Your task to perform on an android device: uninstall "Pandora - Music & Podcasts" Image 0: 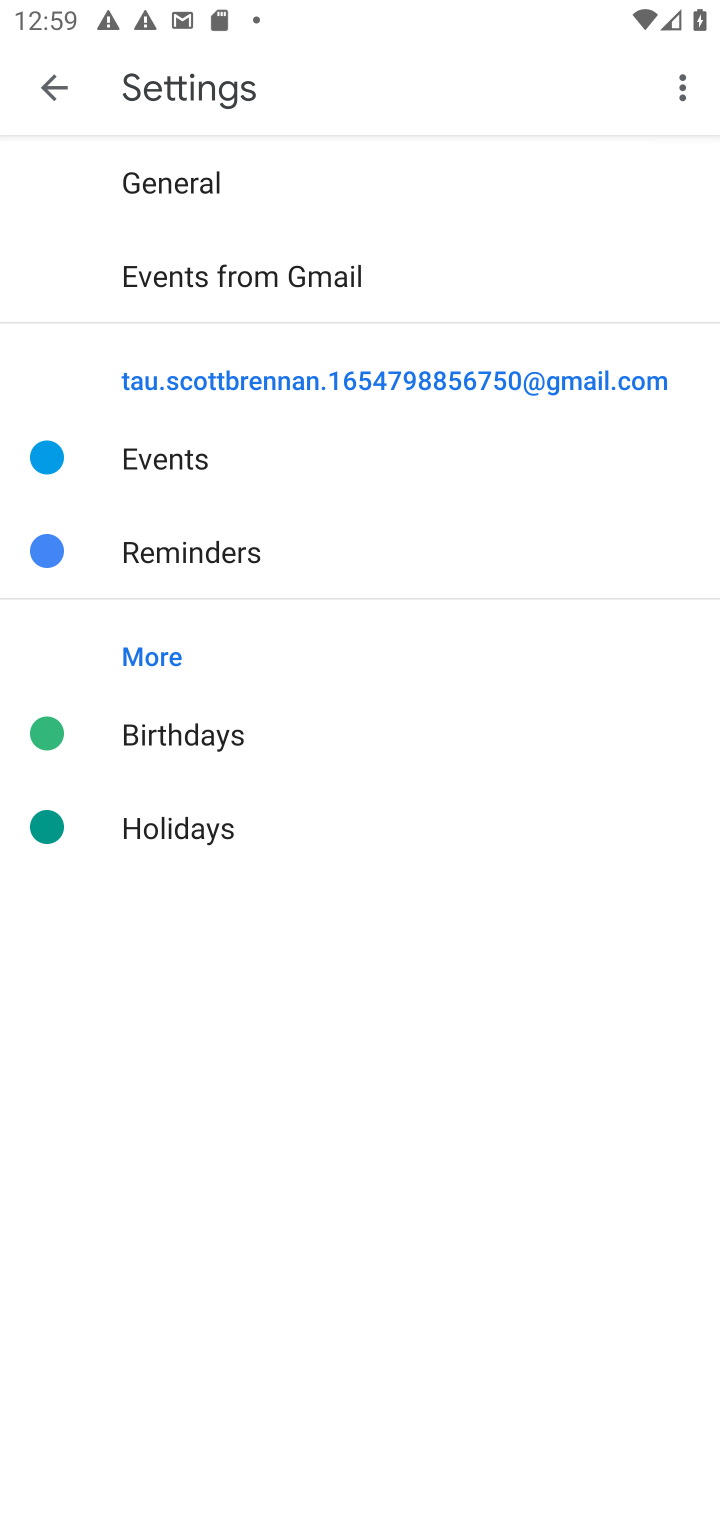
Step 0: press home button
Your task to perform on an android device: uninstall "Pandora - Music & Podcasts" Image 1: 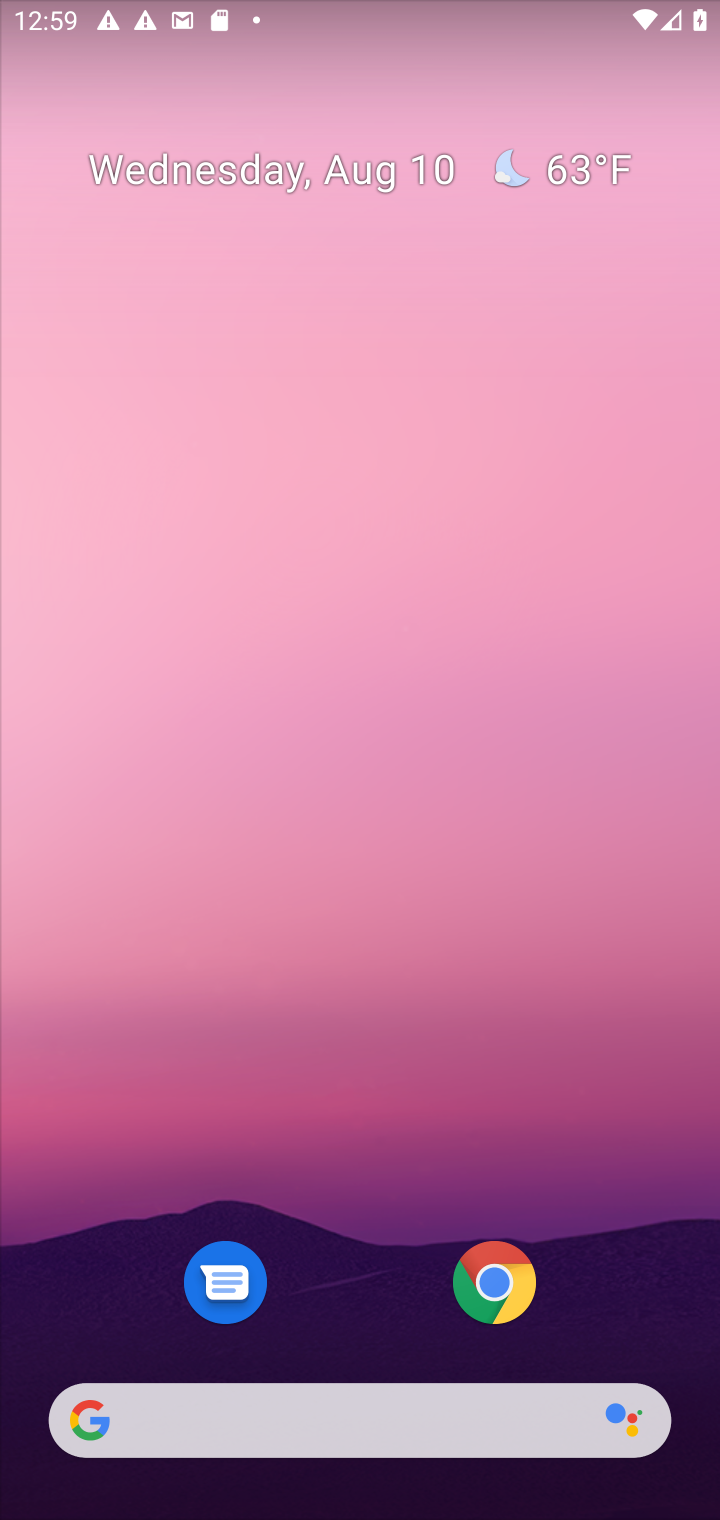
Step 1: drag from (346, 1313) to (389, 439)
Your task to perform on an android device: uninstall "Pandora - Music & Podcasts" Image 2: 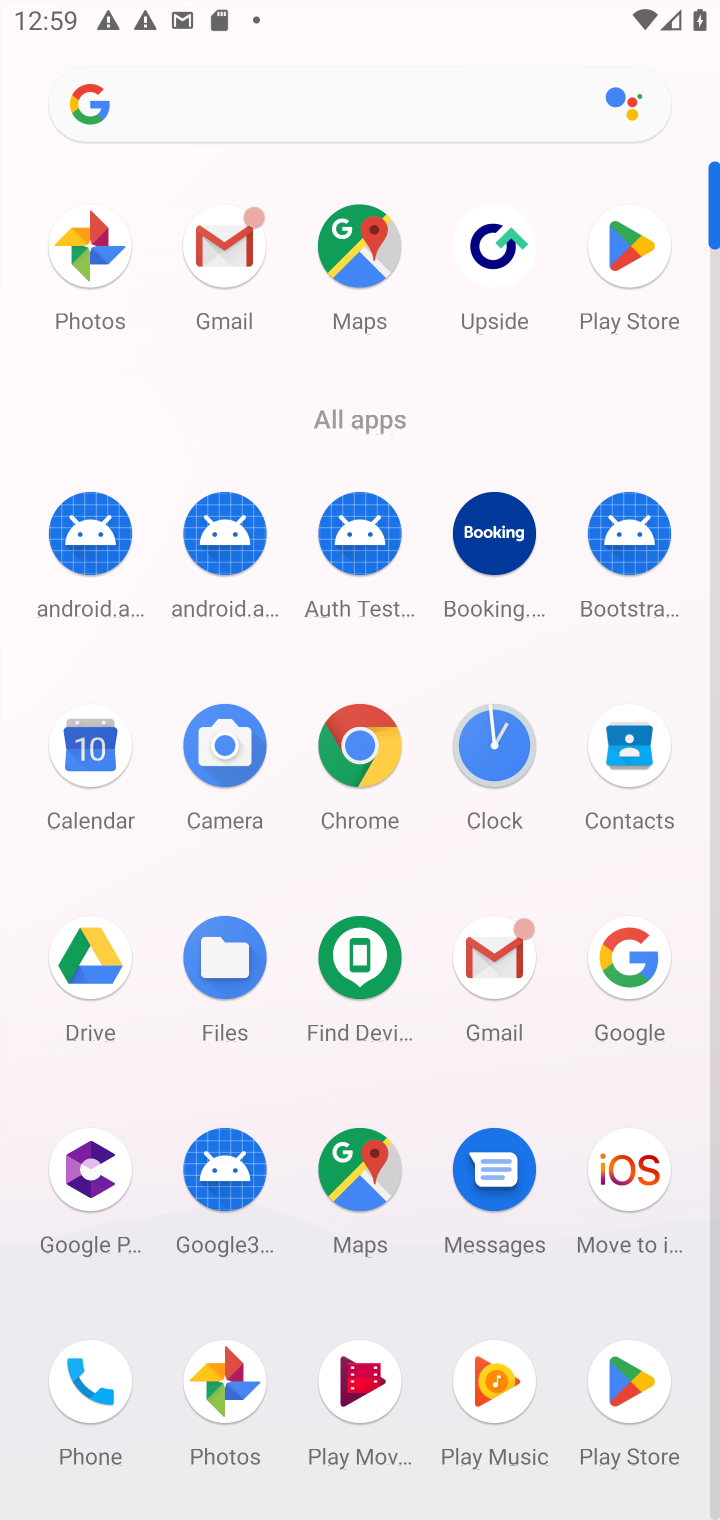
Step 2: click (645, 254)
Your task to perform on an android device: uninstall "Pandora - Music & Podcasts" Image 3: 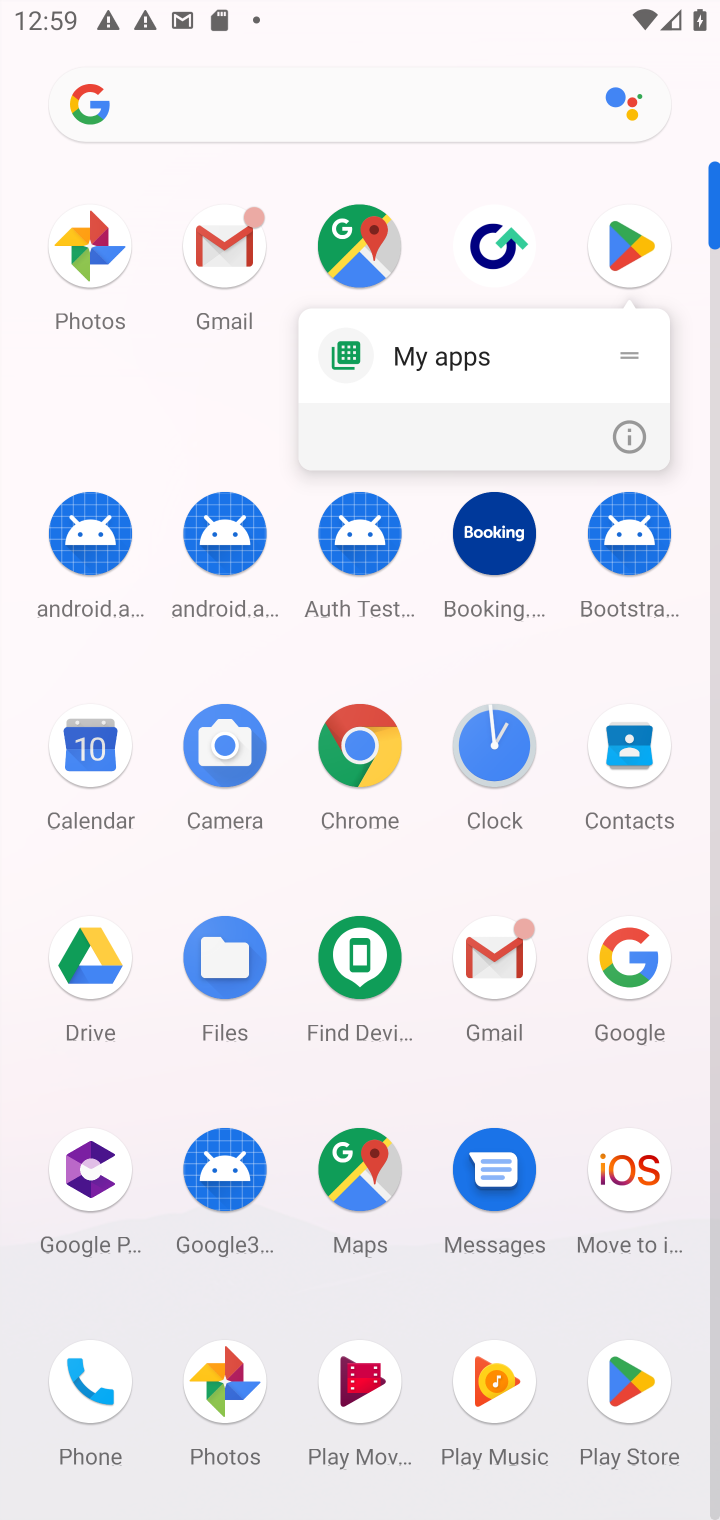
Step 3: click (626, 270)
Your task to perform on an android device: uninstall "Pandora - Music & Podcasts" Image 4: 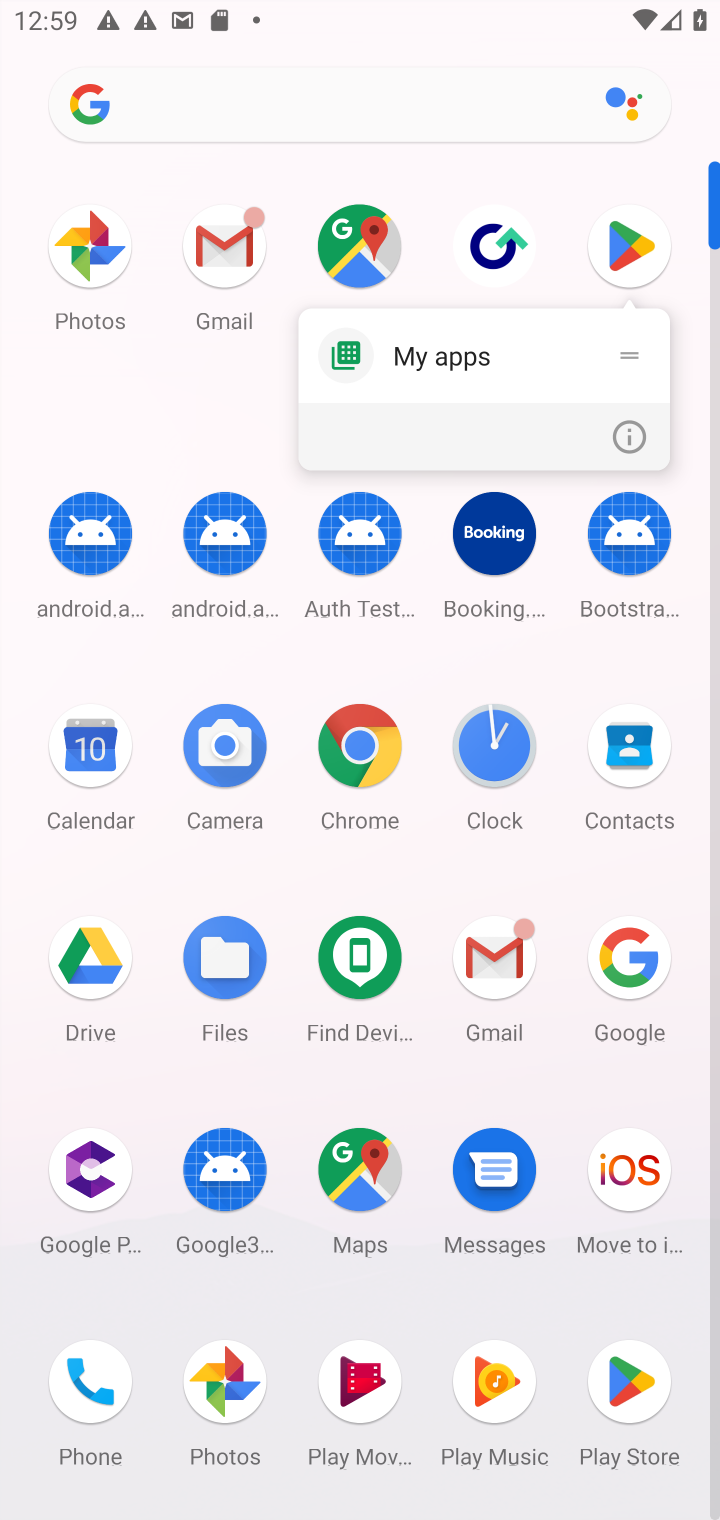
Step 4: click (626, 254)
Your task to perform on an android device: uninstall "Pandora - Music & Podcasts" Image 5: 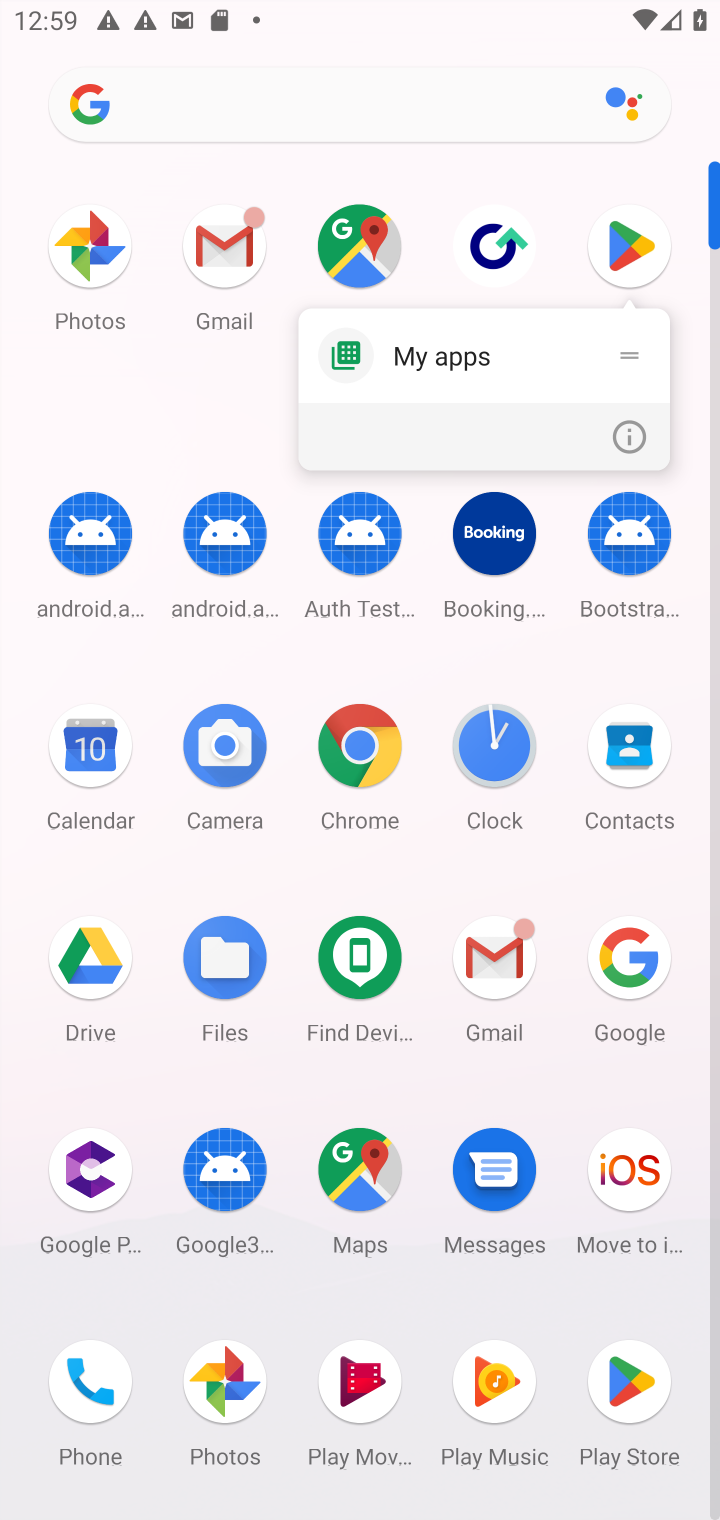
Step 5: click (626, 254)
Your task to perform on an android device: uninstall "Pandora - Music & Podcasts" Image 6: 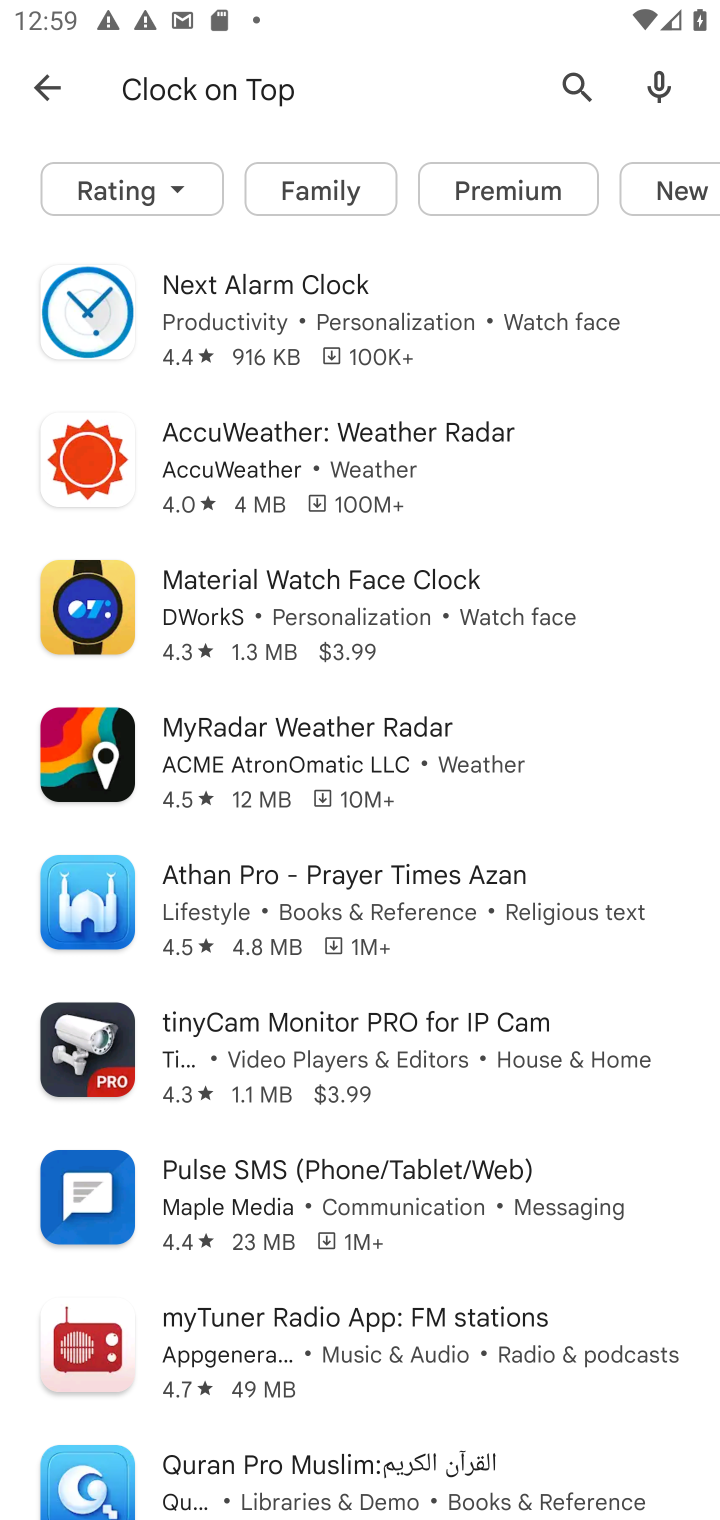
Step 6: click (76, 76)
Your task to perform on an android device: uninstall "Pandora - Music & Podcasts" Image 7: 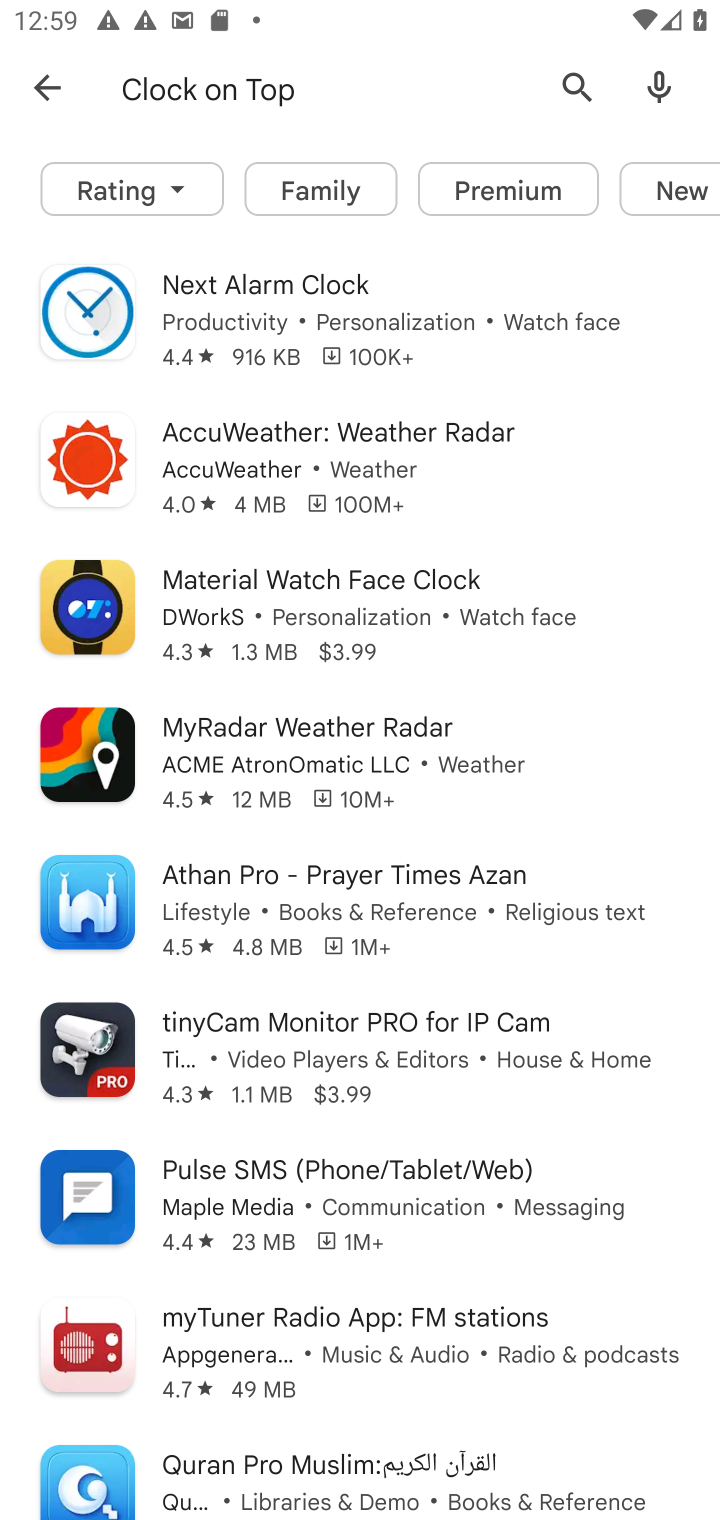
Step 7: click (28, 96)
Your task to perform on an android device: uninstall "Pandora - Music & Podcasts" Image 8: 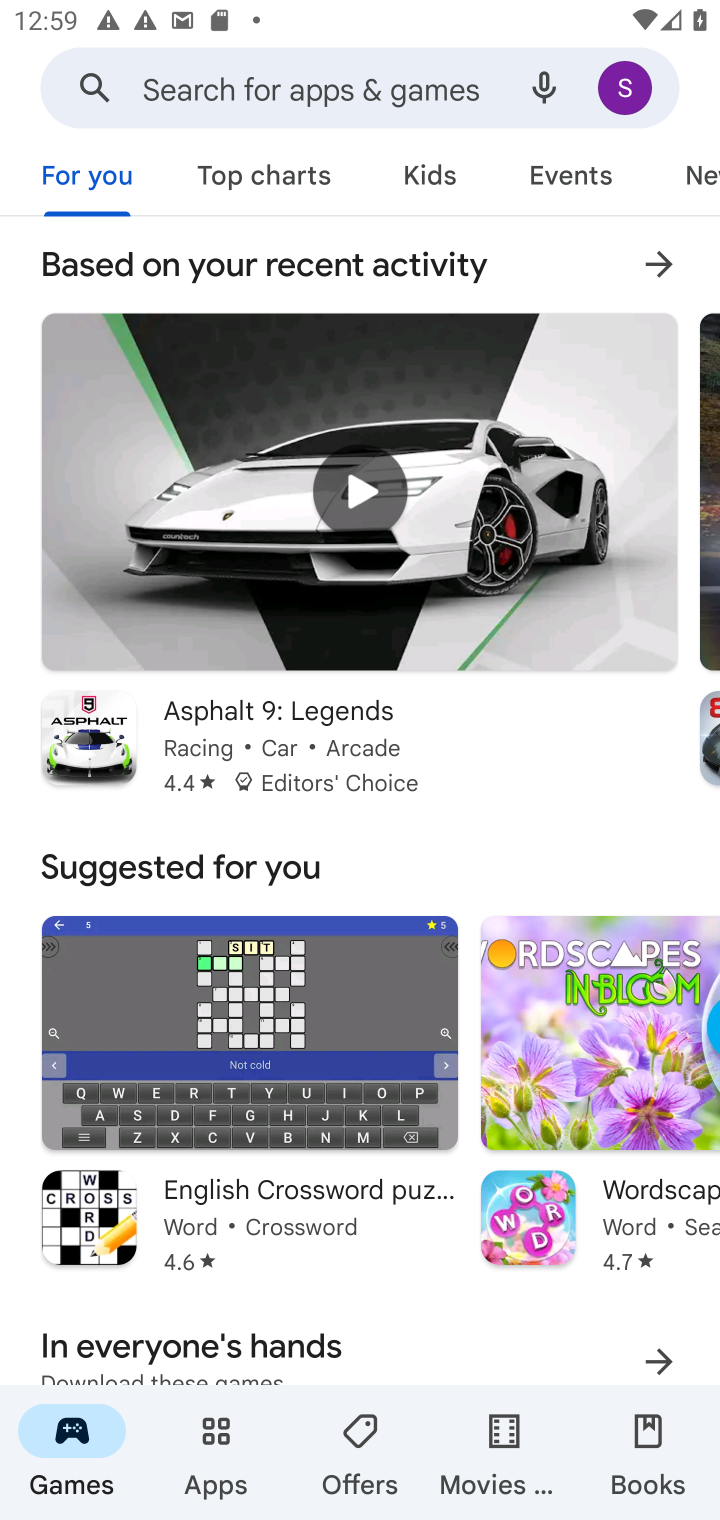
Step 8: click (363, 76)
Your task to perform on an android device: uninstall "Pandora - Music & Podcasts" Image 9: 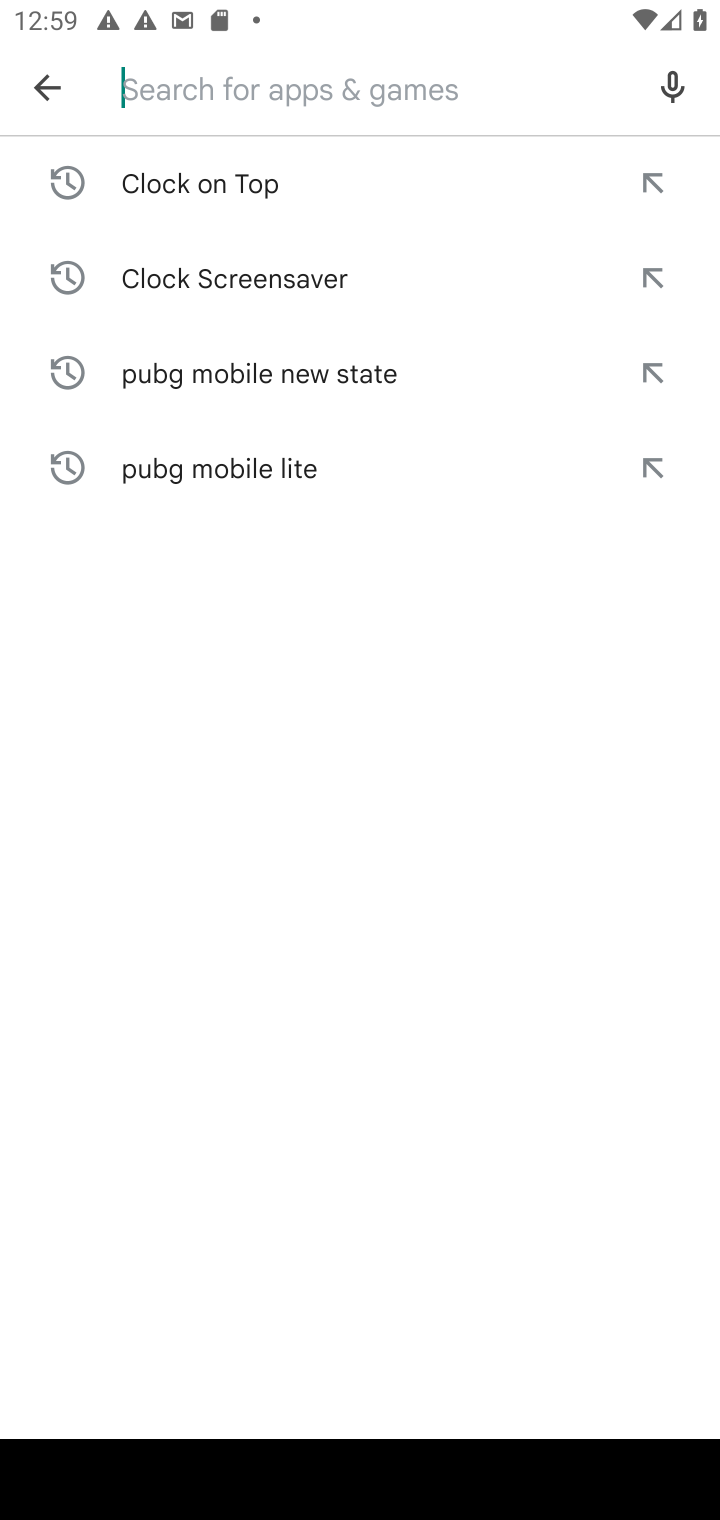
Step 9: type "Pandora  "
Your task to perform on an android device: uninstall "Pandora - Music & Podcasts" Image 10: 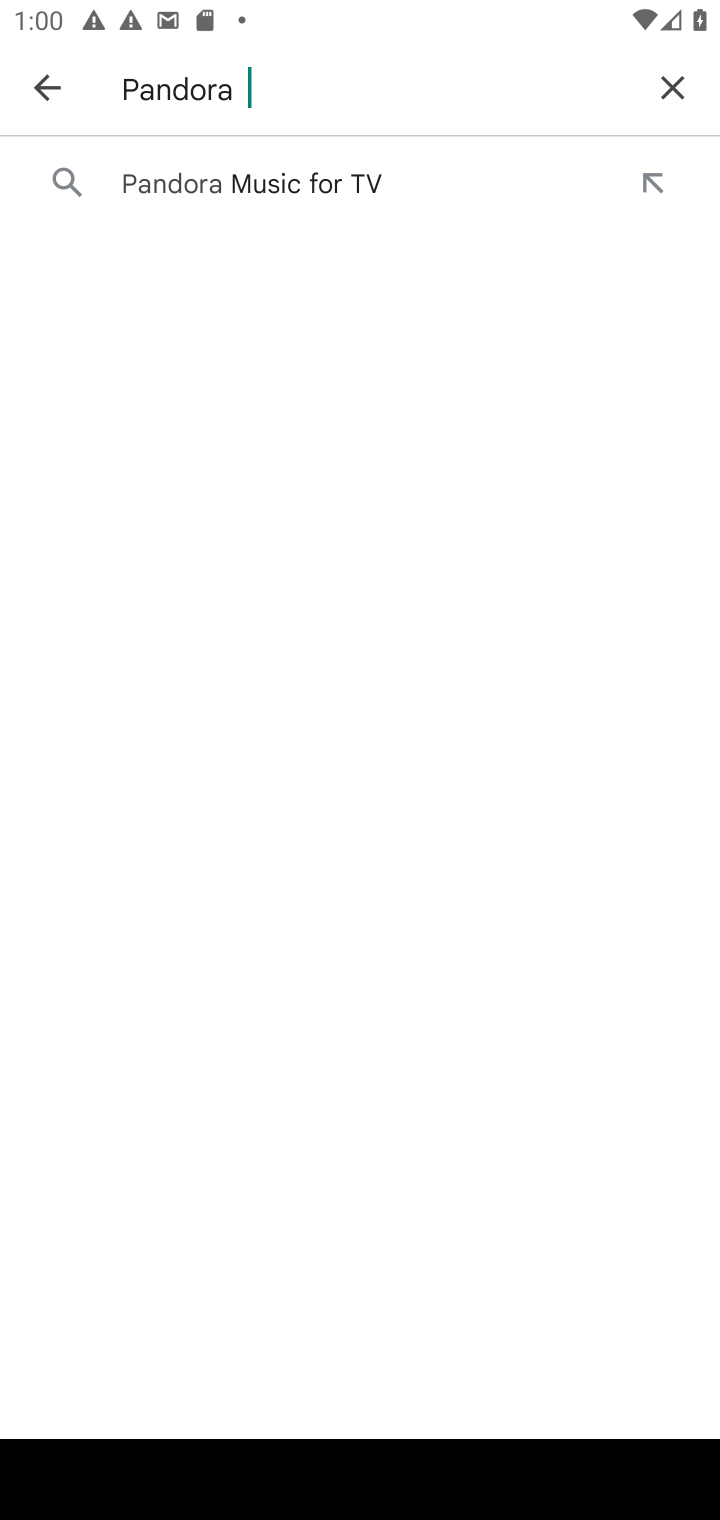
Step 10: click (273, 191)
Your task to perform on an android device: uninstall "Pandora - Music & Podcasts" Image 11: 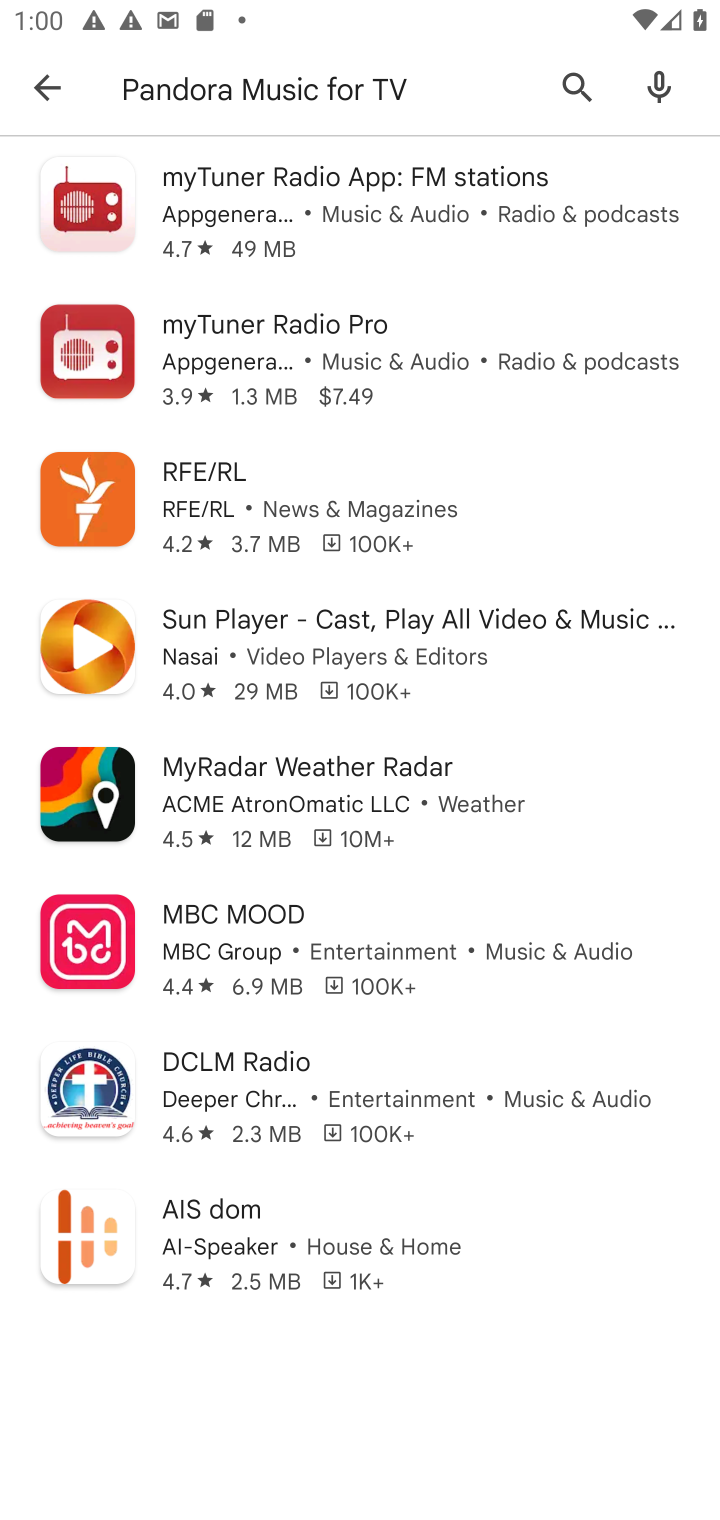
Step 11: click (32, 82)
Your task to perform on an android device: uninstall "Pandora - Music & Podcasts" Image 12: 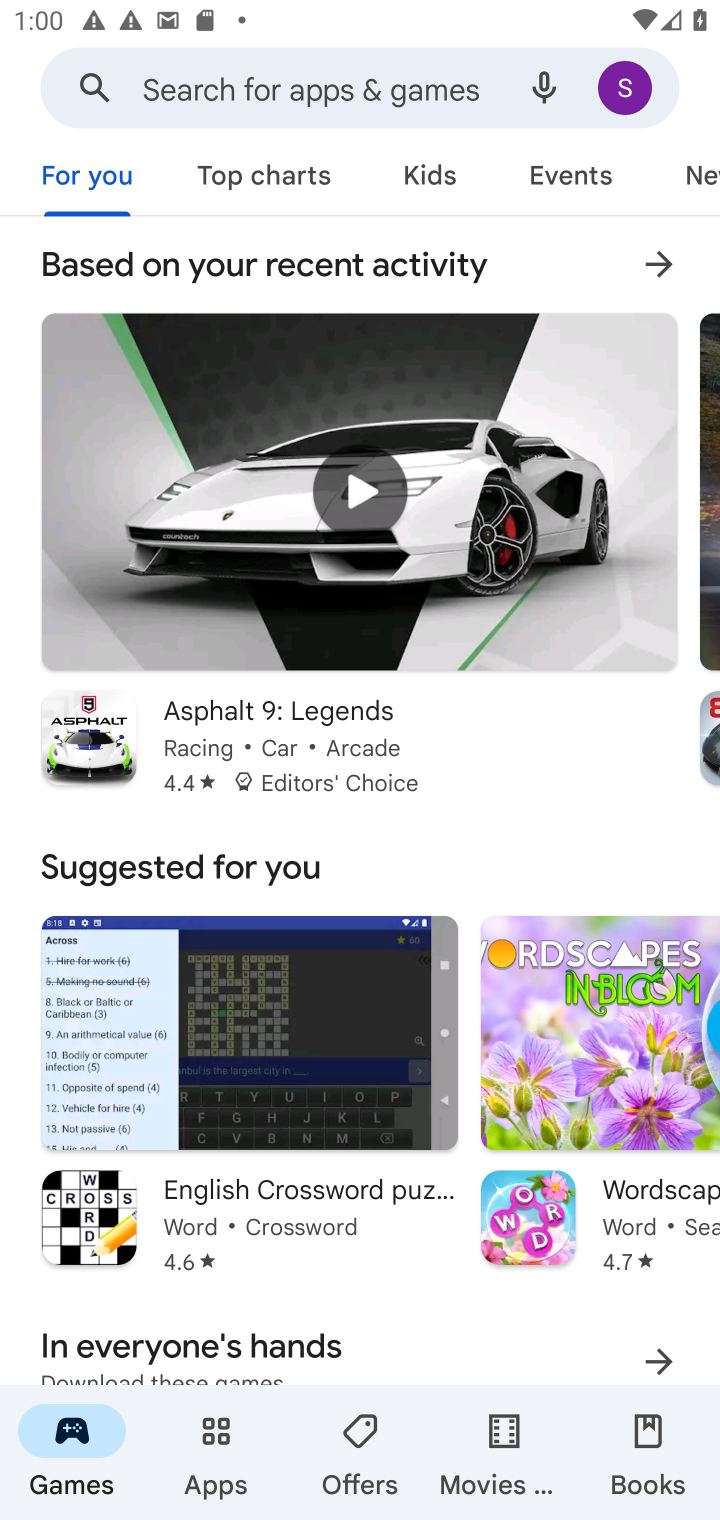
Step 12: click (313, 79)
Your task to perform on an android device: uninstall "Pandora - Music & Podcasts" Image 13: 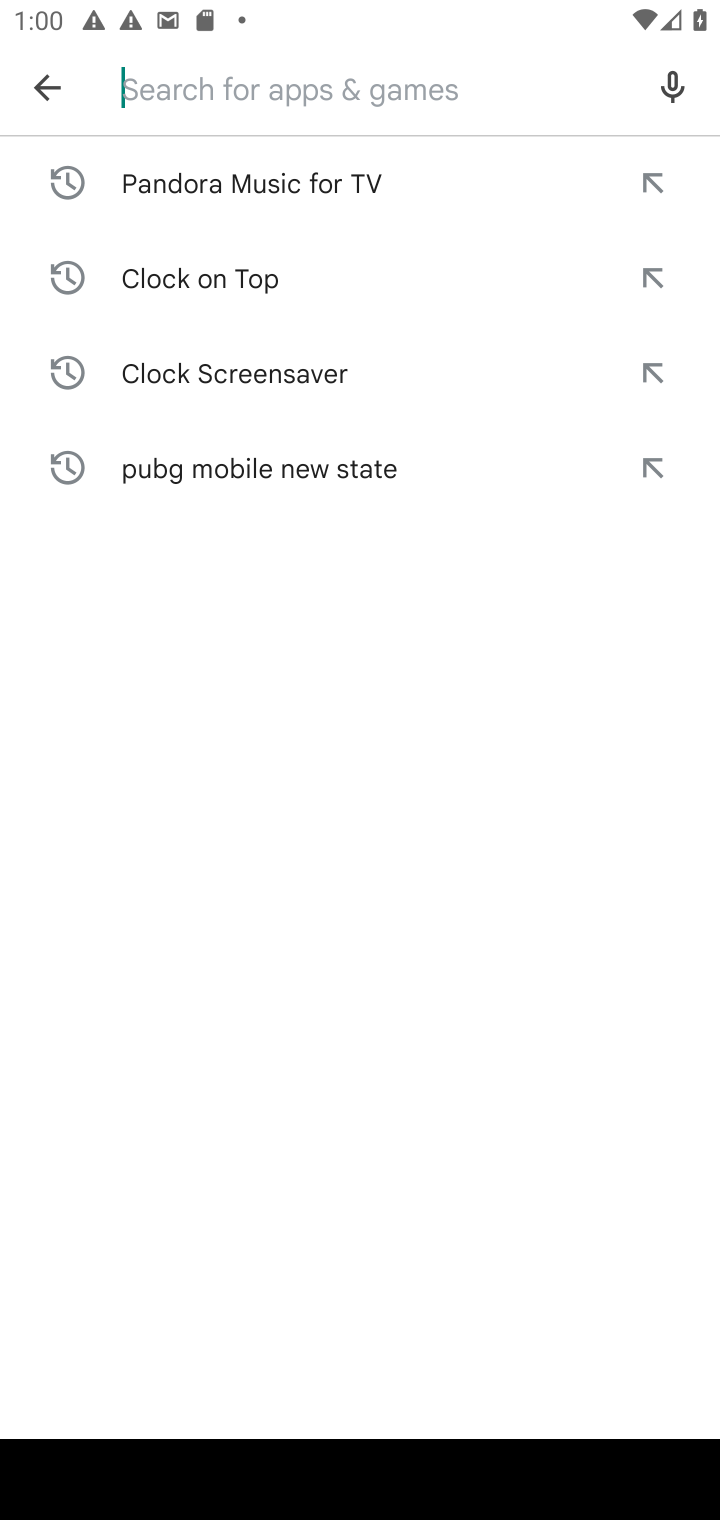
Step 13: type "Pandora - Music & Podcasts "
Your task to perform on an android device: uninstall "Pandora - Music & Podcasts" Image 14: 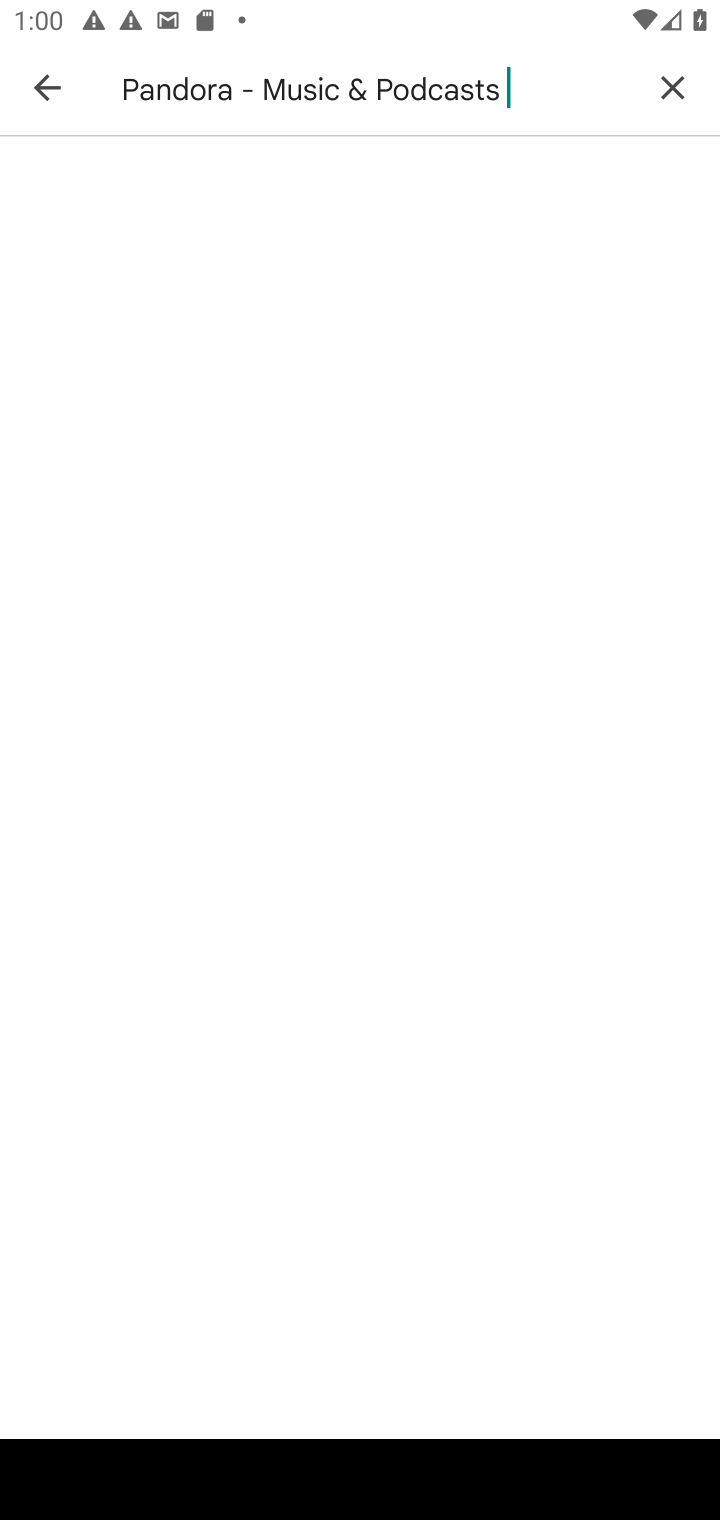
Step 14: task complete